Your task to perform on an android device: Add energizer triple a to the cart on walmart Image 0: 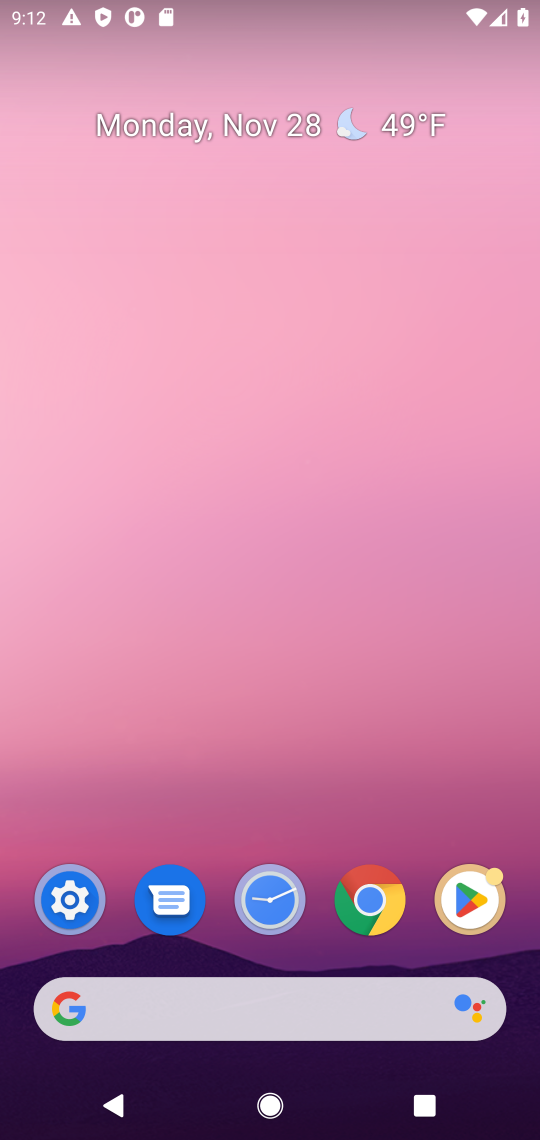
Step 0: click (255, 1024)
Your task to perform on an android device: Add energizer triple a to the cart on walmart Image 1: 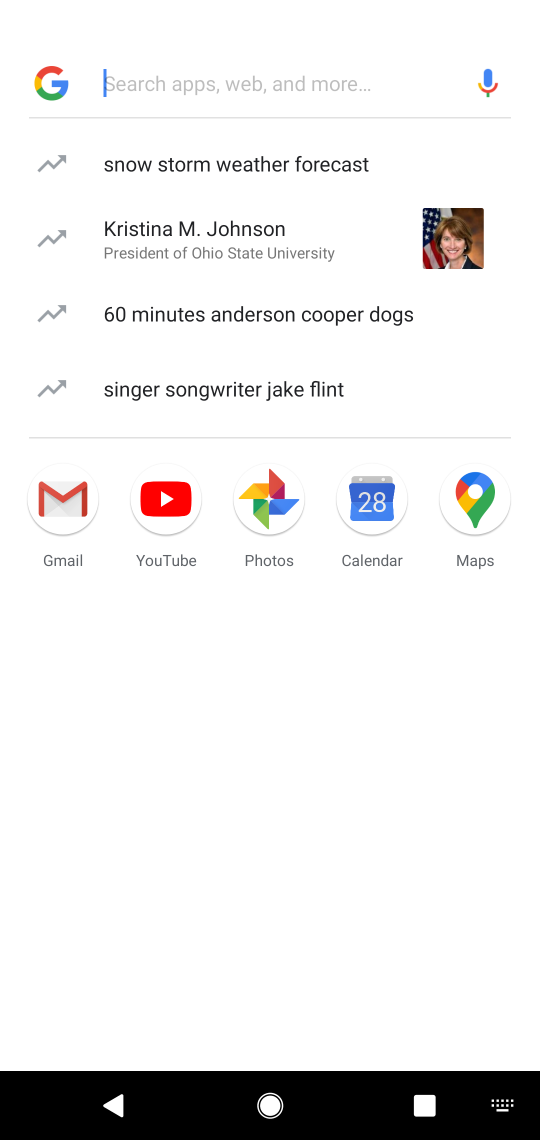
Step 1: type "walmart"
Your task to perform on an android device: Add energizer triple a to the cart on walmart Image 2: 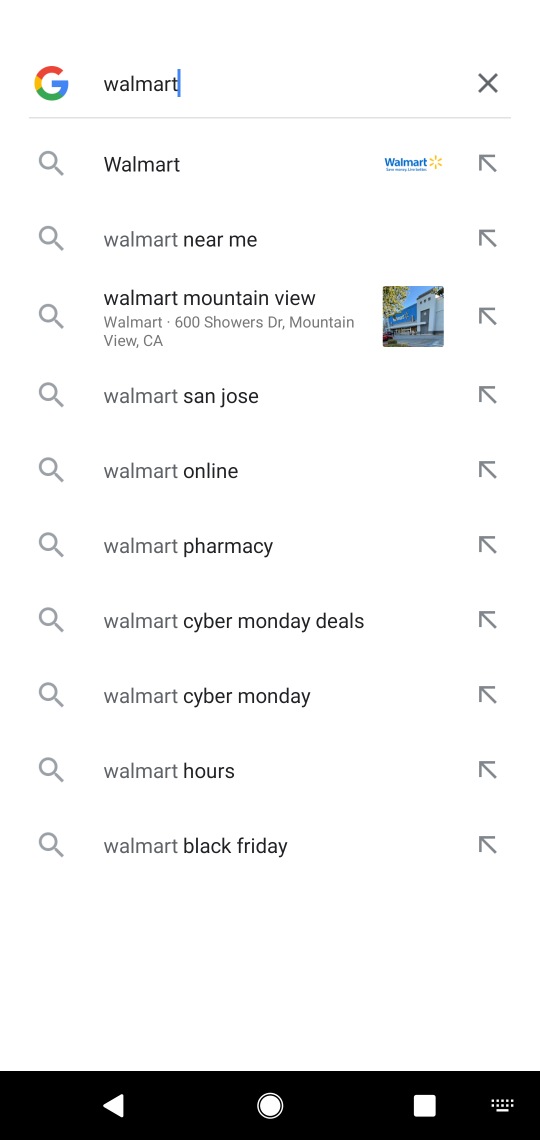
Step 2: click (197, 191)
Your task to perform on an android device: Add energizer triple a to the cart on walmart Image 3: 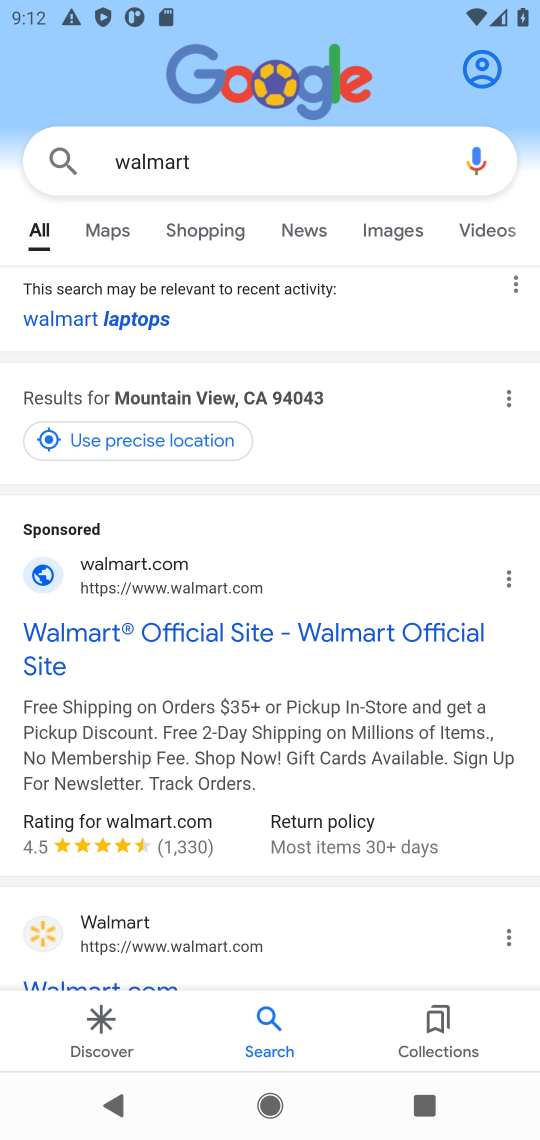
Step 3: click (83, 632)
Your task to perform on an android device: Add energizer triple a to the cart on walmart Image 4: 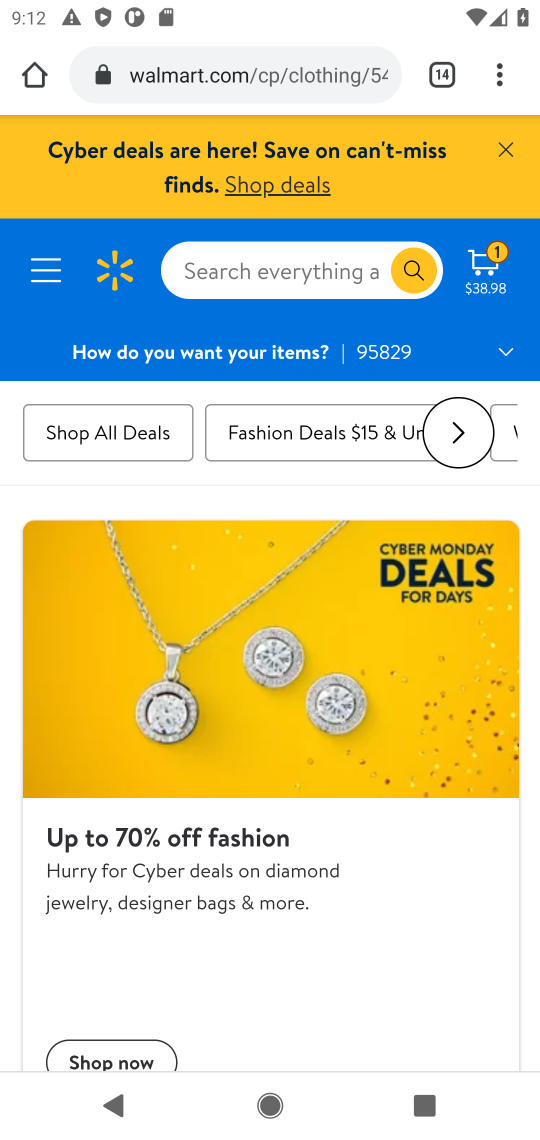
Step 4: click (236, 283)
Your task to perform on an android device: Add energizer triple a to the cart on walmart Image 5: 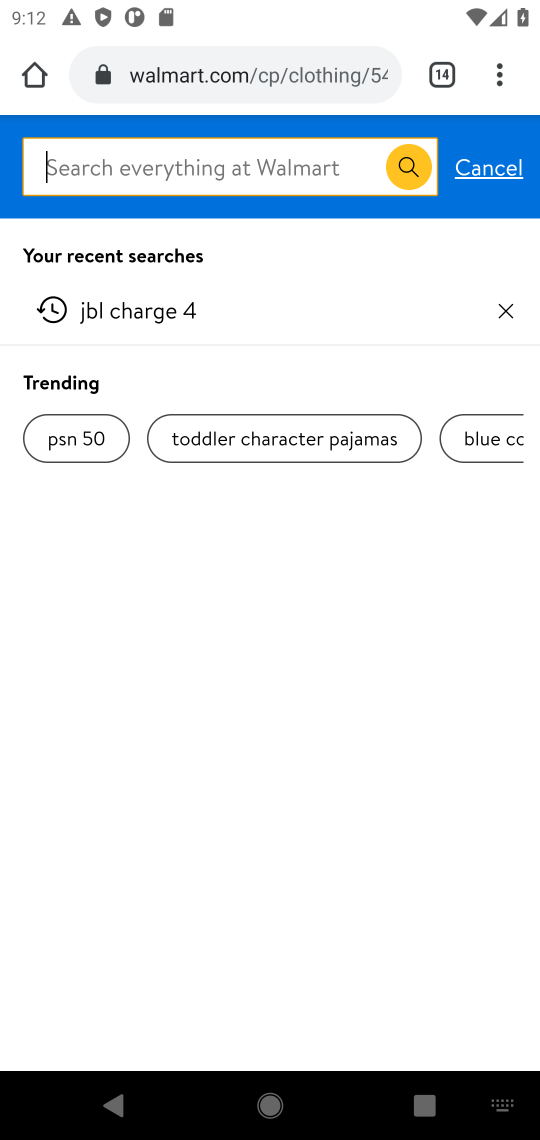
Step 5: type "walmart"
Your task to perform on an android device: Add energizer triple a to the cart on walmart Image 6: 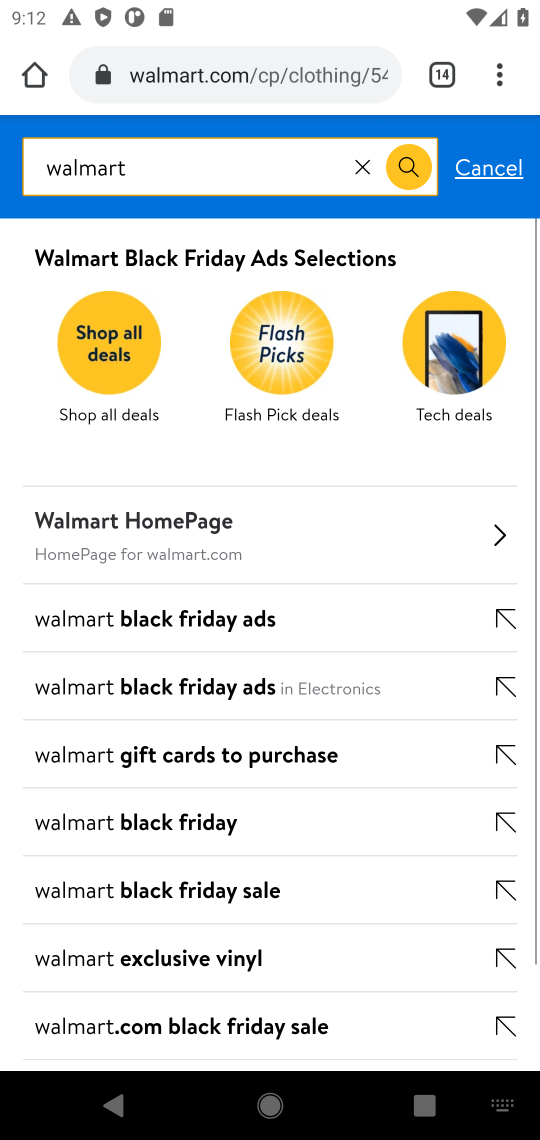
Step 6: click (369, 179)
Your task to perform on an android device: Add energizer triple a to the cart on walmart Image 7: 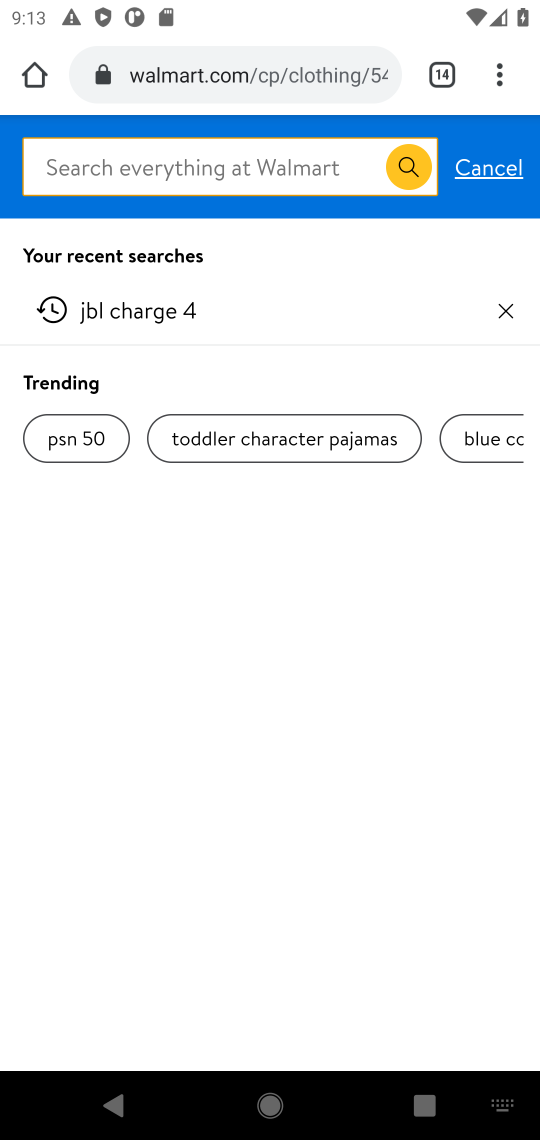
Step 7: type "triple a"
Your task to perform on an android device: Add energizer triple a to the cart on walmart Image 8: 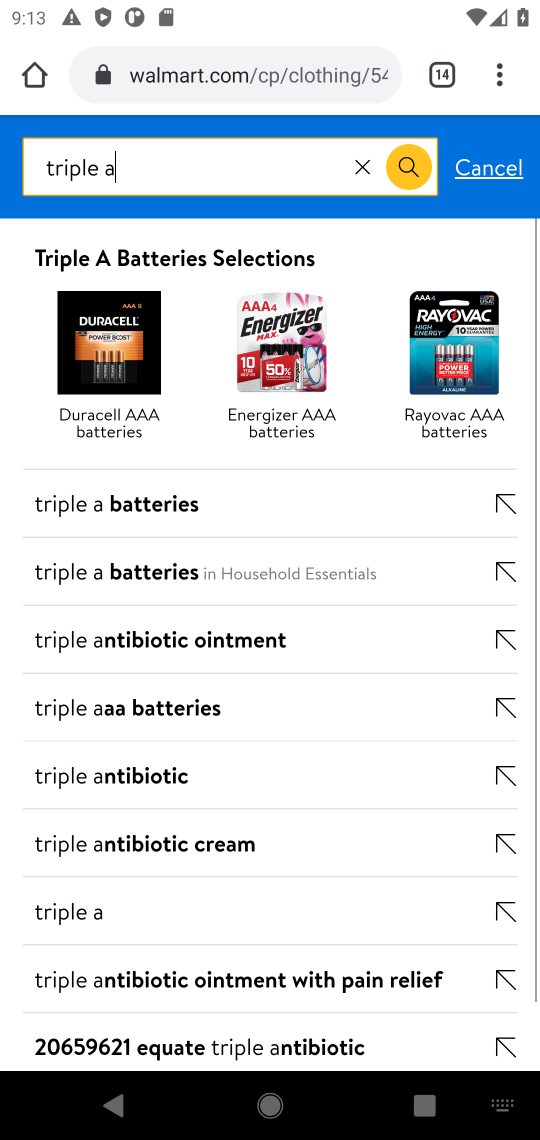
Step 8: click (134, 517)
Your task to perform on an android device: Add energizer triple a to the cart on walmart Image 9: 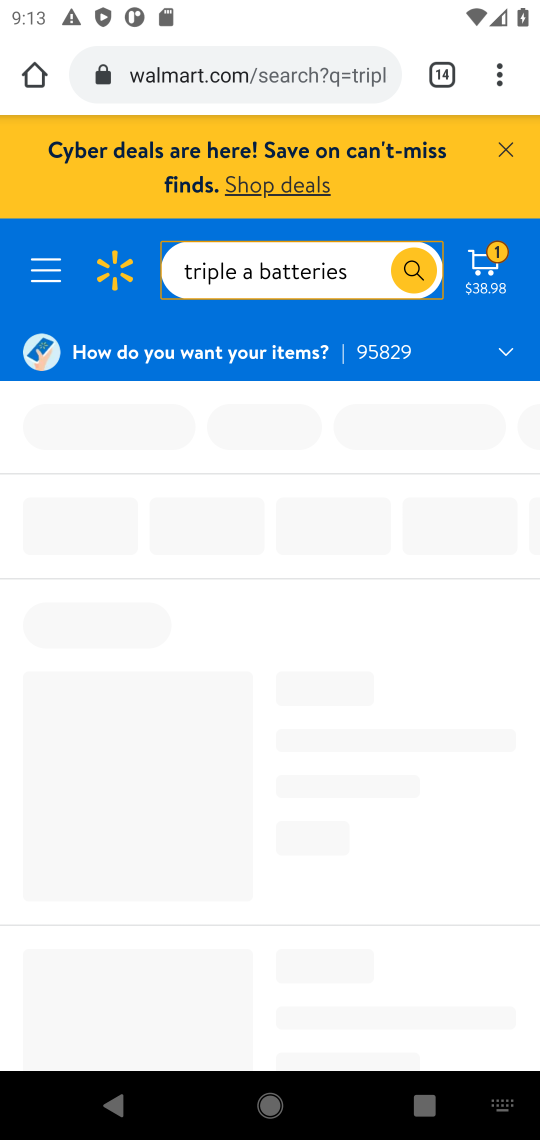
Step 9: task complete